Your task to perform on an android device: What's the weather going to be tomorrow? Image 0: 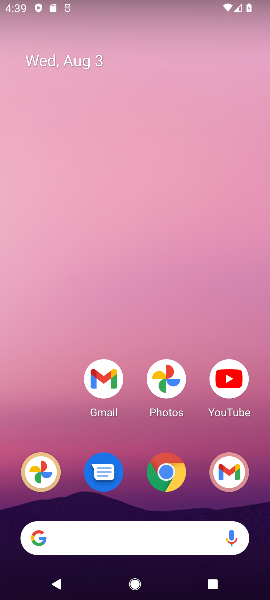
Step 0: drag from (205, 431) to (194, 45)
Your task to perform on an android device: What's the weather going to be tomorrow? Image 1: 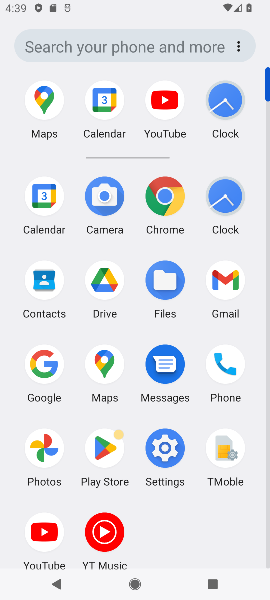
Step 1: click (160, 202)
Your task to perform on an android device: What's the weather going to be tomorrow? Image 2: 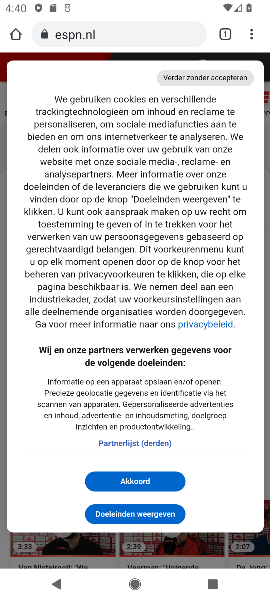
Step 2: click (124, 33)
Your task to perform on an android device: What's the weather going to be tomorrow? Image 3: 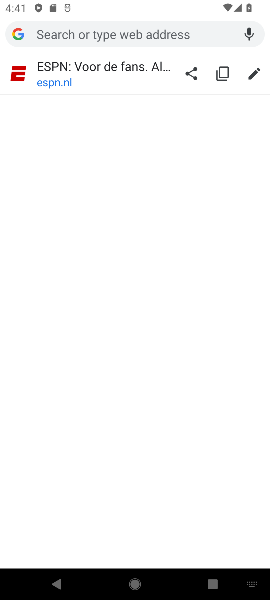
Step 3: type "weather"
Your task to perform on an android device: What's the weather going to be tomorrow? Image 4: 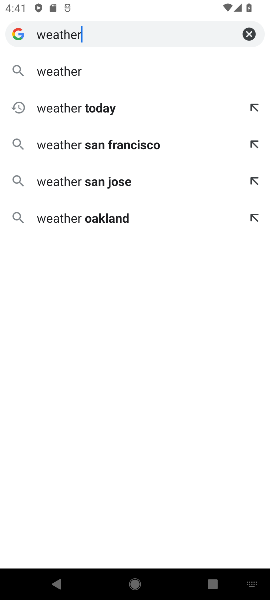
Step 4: press enter
Your task to perform on an android device: What's the weather going to be tomorrow? Image 5: 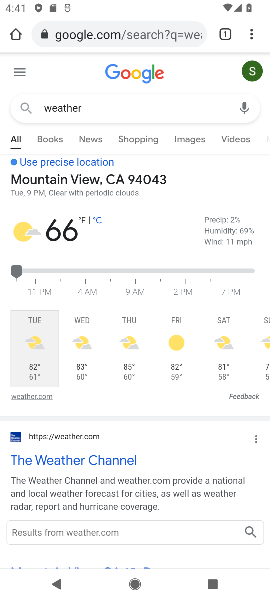
Step 5: click (72, 344)
Your task to perform on an android device: What's the weather going to be tomorrow? Image 6: 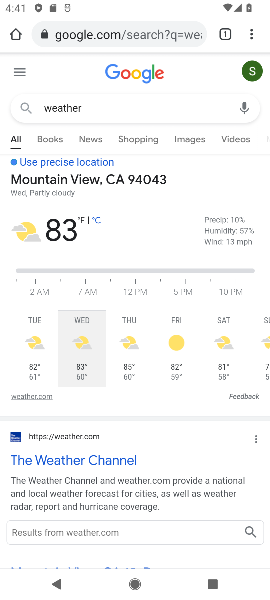
Step 6: task complete